Your task to perform on an android device: see tabs open on other devices in the chrome app Image 0: 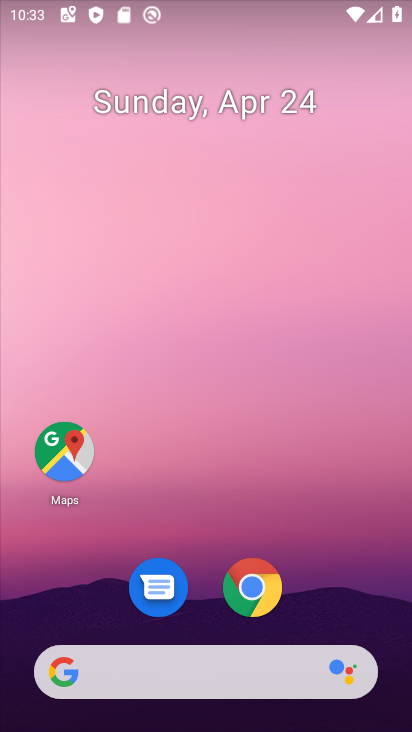
Step 0: drag from (362, 610) to (335, 196)
Your task to perform on an android device: see tabs open on other devices in the chrome app Image 1: 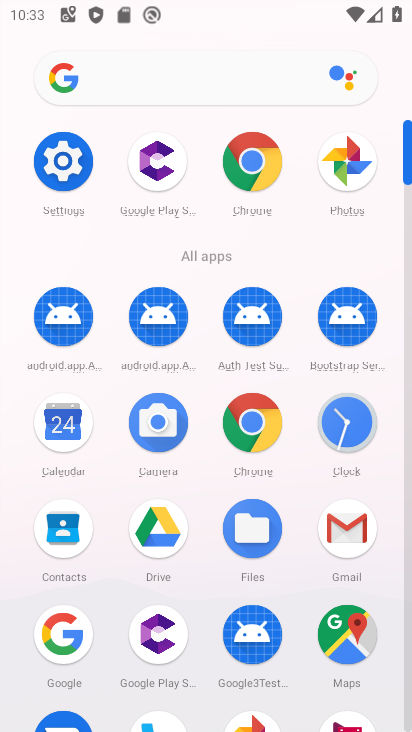
Step 1: click (257, 424)
Your task to perform on an android device: see tabs open on other devices in the chrome app Image 2: 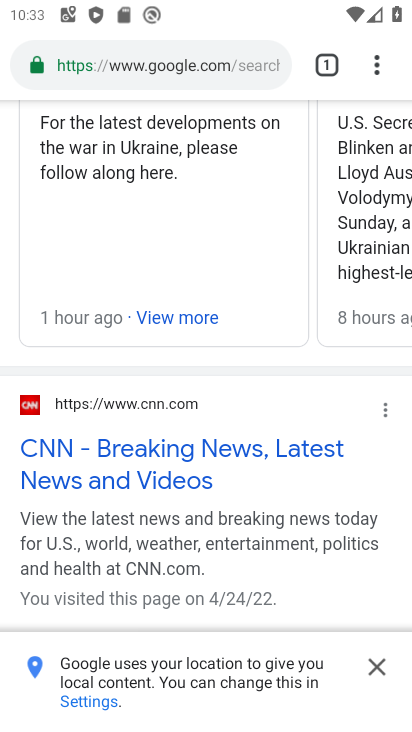
Step 2: click (158, 66)
Your task to perform on an android device: see tabs open on other devices in the chrome app Image 3: 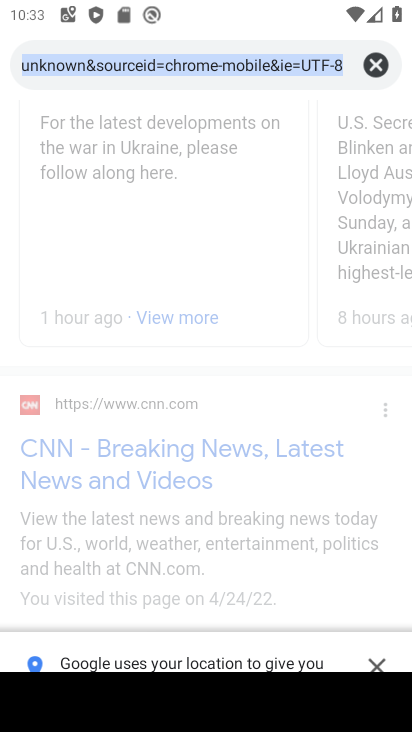
Step 3: click (367, 61)
Your task to perform on an android device: see tabs open on other devices in the chrome app Image 4: 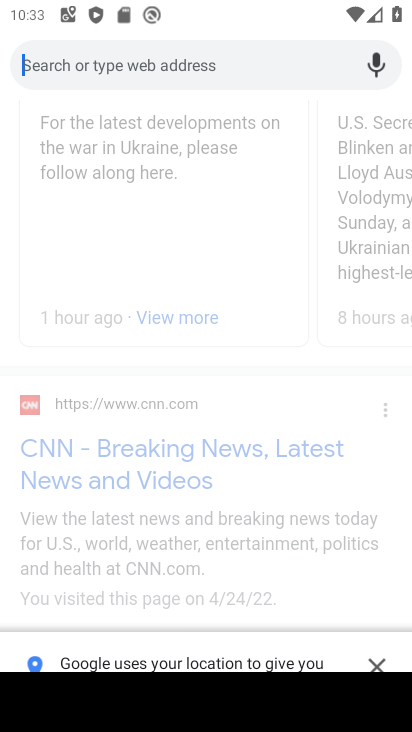
Step 4: click (143, 357)
Your task to perform on an android device: see tabs open on other devices in the chrome app Image 5: 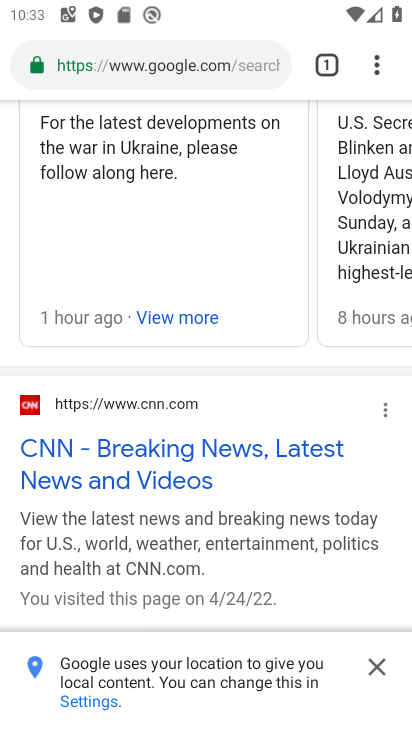
Step 5: click (336, 66)
Your task to perform on an android device: see tabs open on other devices in the chrome app Image 6: 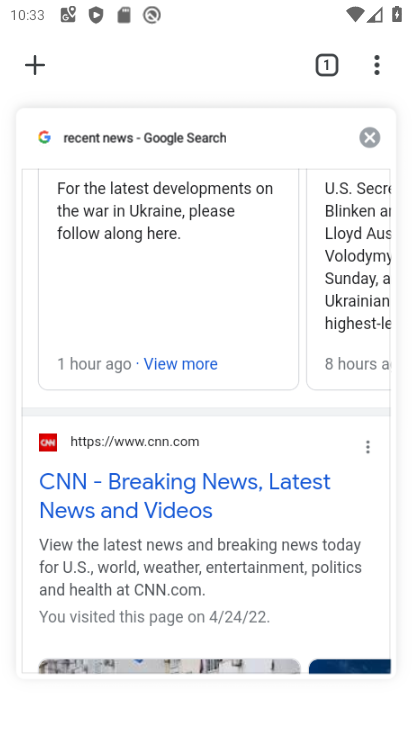
Step 6: click (28, 60)
Your task to perform on an android device: see tabs open on other devices in the chrome app Image 7: 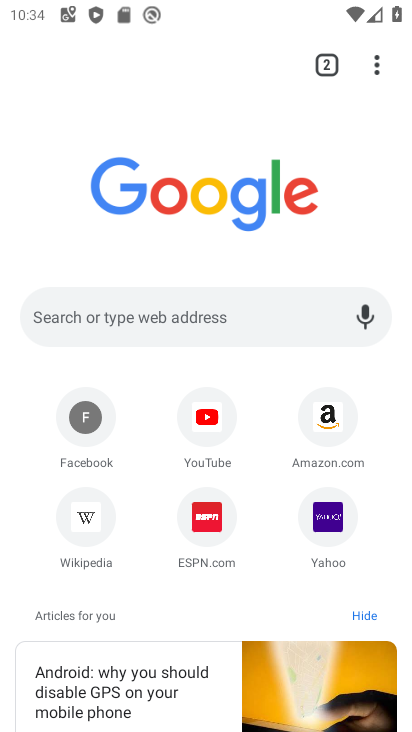
Step 7: click (340, 66)
Your task to perform on an android device: see tabs open on other devices in the chrome app Image 8: 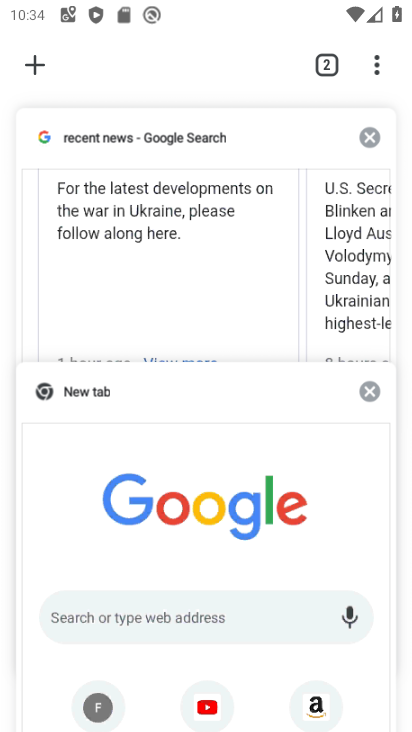
Step 8: task complete